Your task to perform on an android device: turn on showing notifications on the lock screen Image 0: 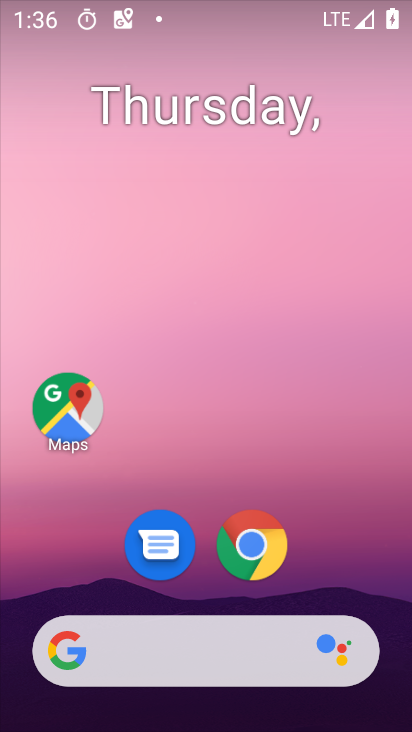
Step 0: drag from (198, 625) to (192, 52)
Your task to perform on an android device: turn on showing notifications on the lock screen Image 1: 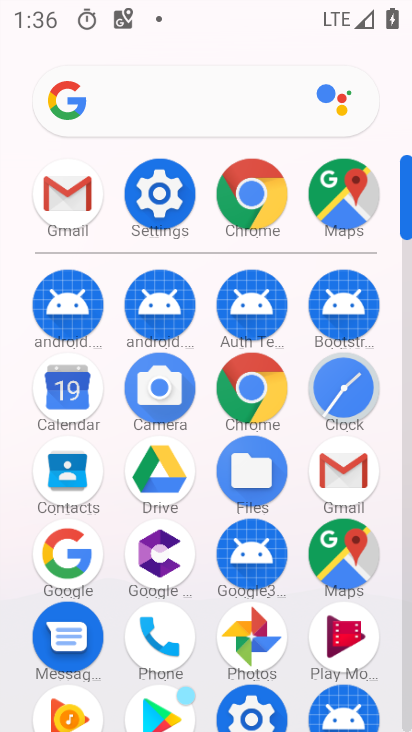
Step 1: click (173, 201)
Your task to perform on an android device: turn on showing notifications on the lock screen Image 2: 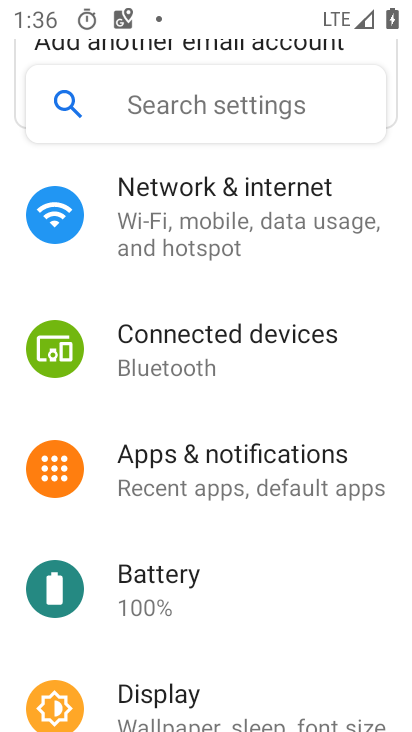
Step 2: click (258, 247)
Your task to perform on an android device: turn on showing notifications on the lock screen Image 3: 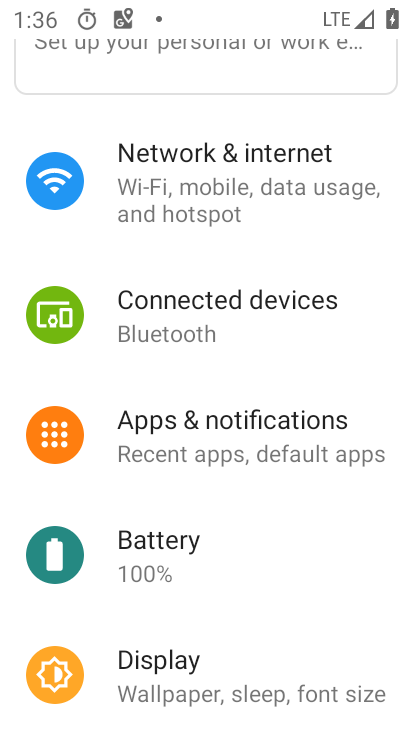
Step 3: click (261, 432)
Your task to perform on an android device: turn on showing notifications on the lock screen Image 4: 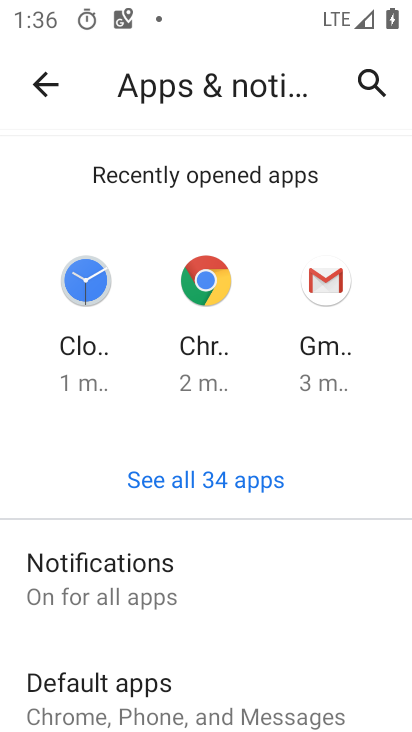
Step 4: click (187, 591)
Your task to perform on an android device: turn on showing notifications on the lock screen Image 5: 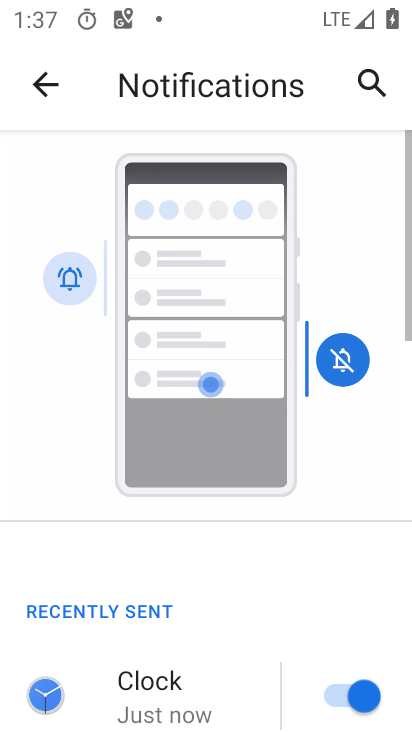
Step 5: drag from (206, 664) to (257, 14)
Your task to perform on an android device: turn on showing notifications on the lock screen Image 6: 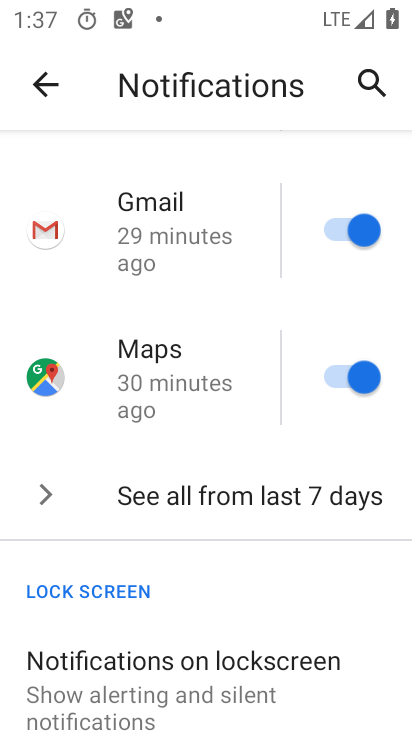
Step 6: click (196, 672)
Your task to perform on an android device: turn on showing notifications on the lock screen Image 7: 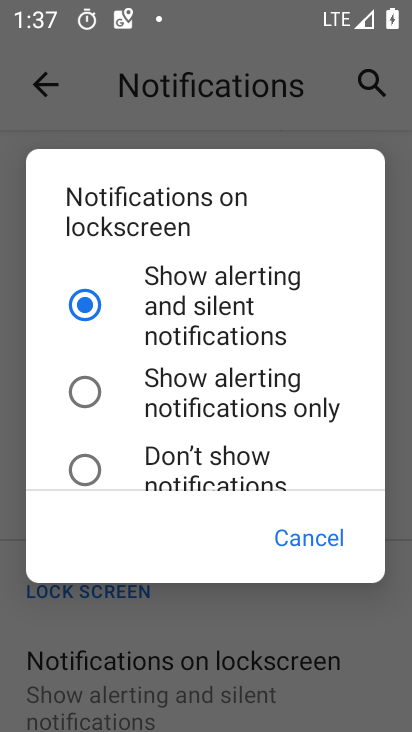
Step 7: task complete